Your task to perform on an android device: show emergency info Image 0: 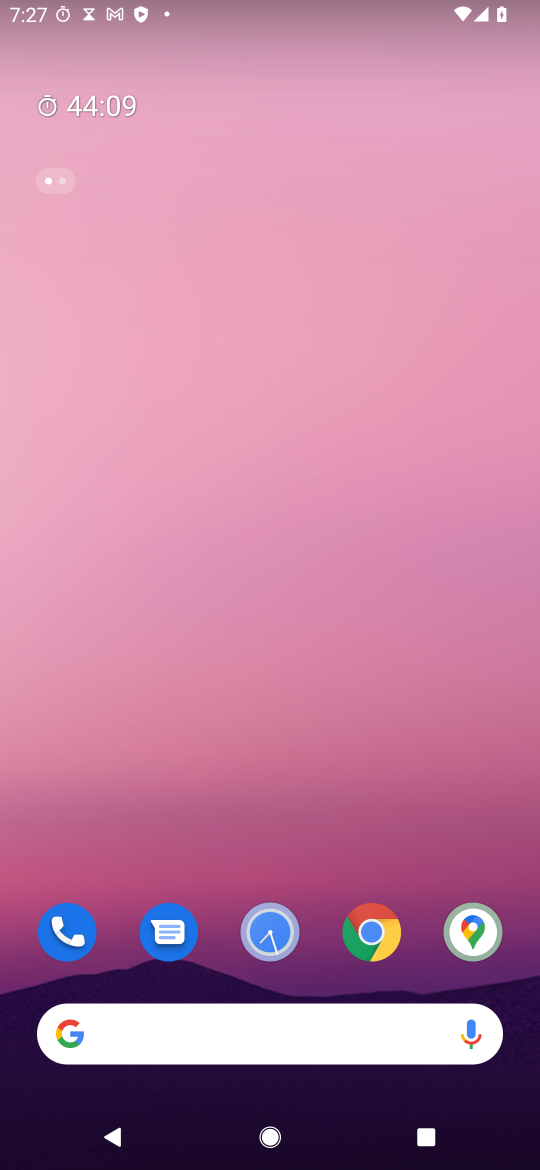
Step 0: drag from (390, 782) to (501, 17)
Your task to perform on an android device: show emergency info Image 1: 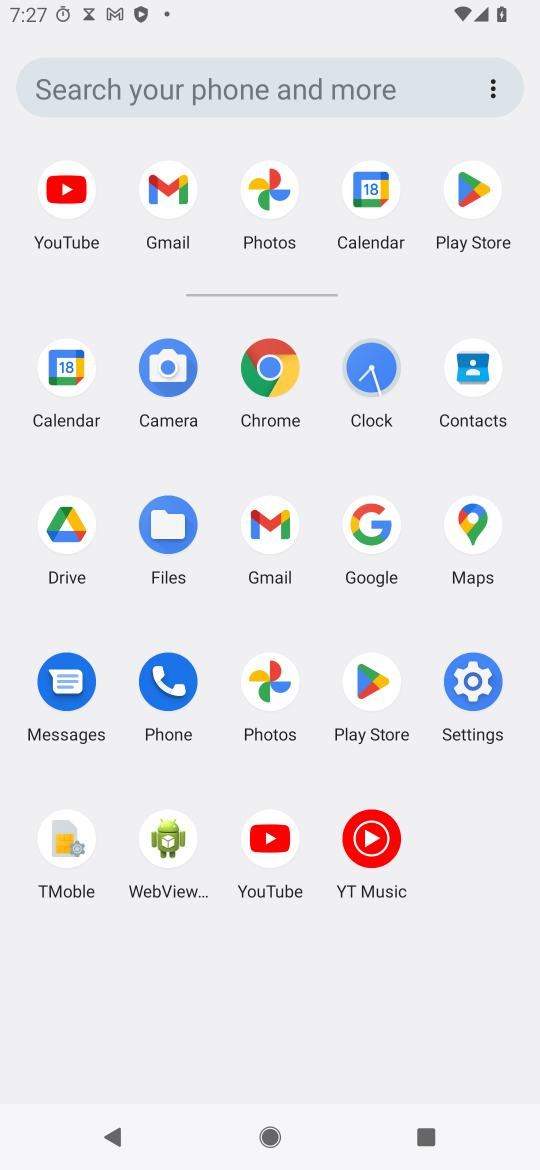
Step 1: click (257, 359)
Your task to perform on an android device: show emergency info Image 2: 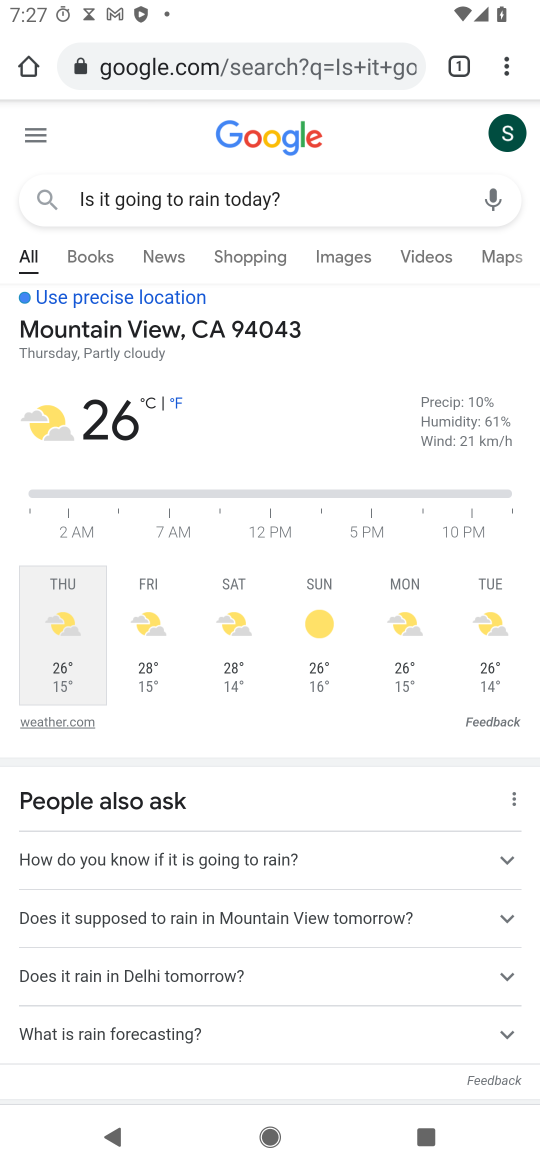
Step 2: press home button
Your task to perform on an android device: show emergency info Image 3: 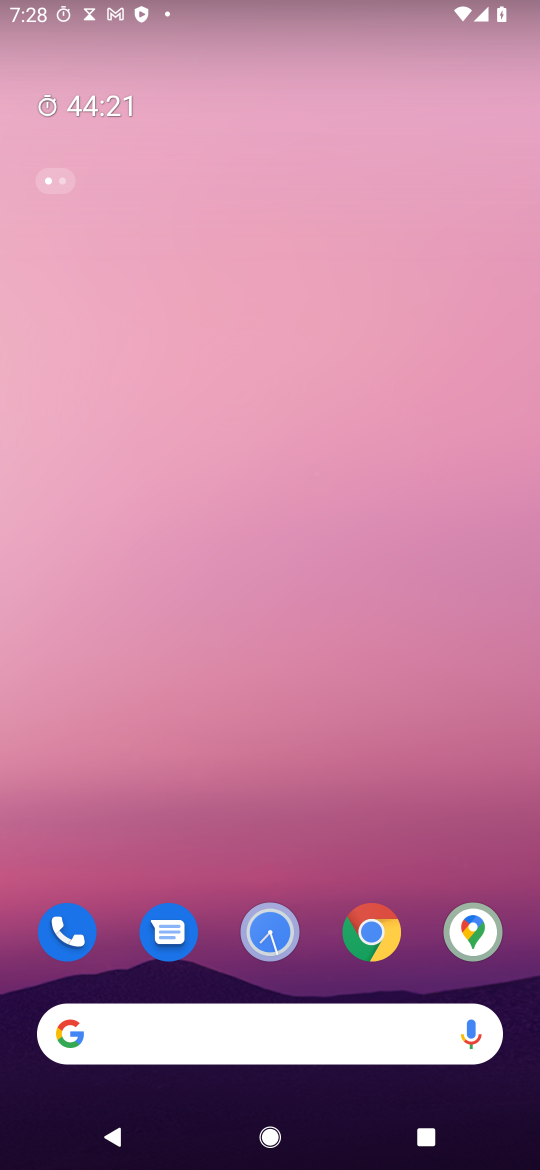
Step 3: drag from (253, 820) to (307, 75)
Your task to perform on an android device: show emergency info Image 4: 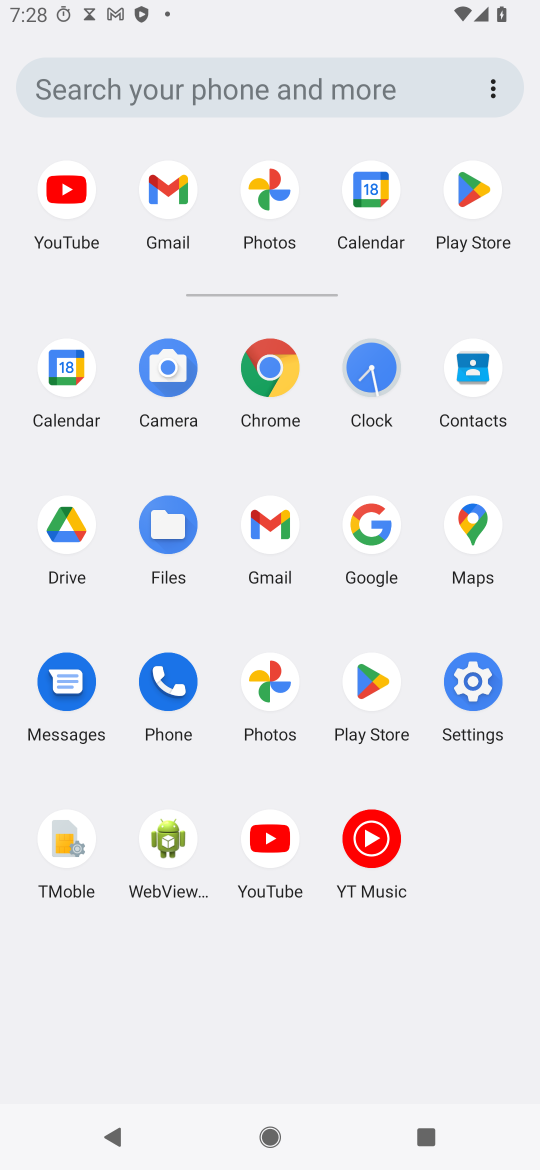
Step 4: click (475, 698)
Your task to perform on an android device: show emergency info Image 5: 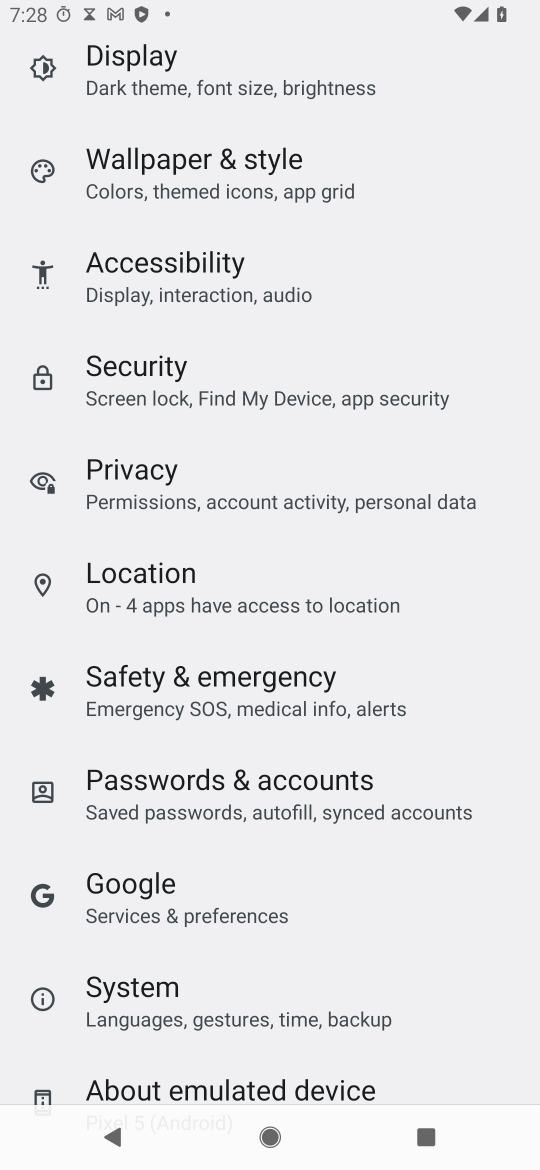
Step 5: drag from (366, 280) to (267, 929)
Your task to perform on an android device: show emergency info Image 6: 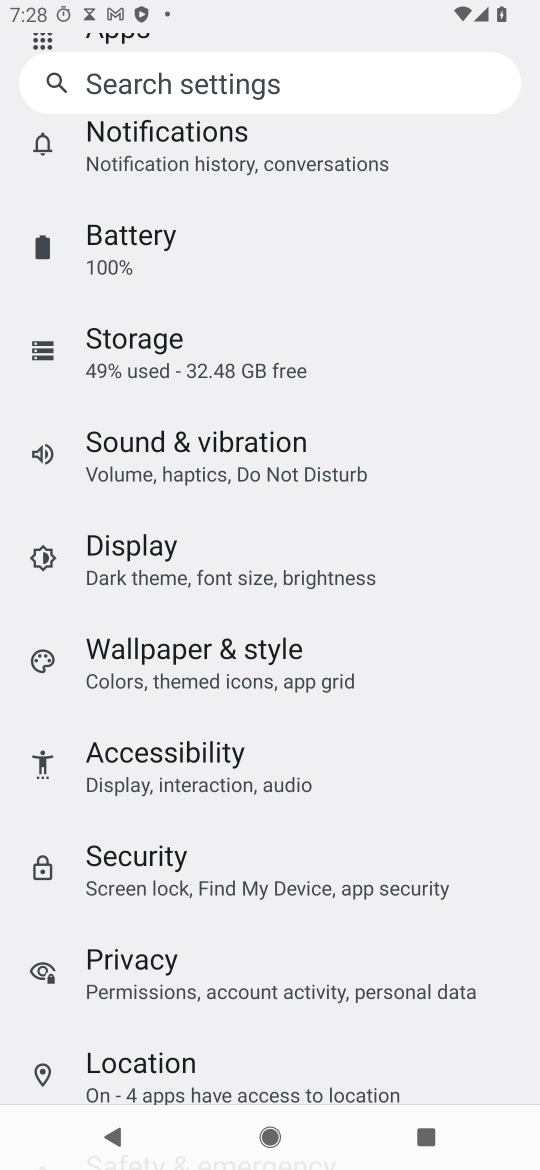
Step 6: drag from (264, 337) to (220, 940)
Your task to perform on an android device: show emergency info Image 7: 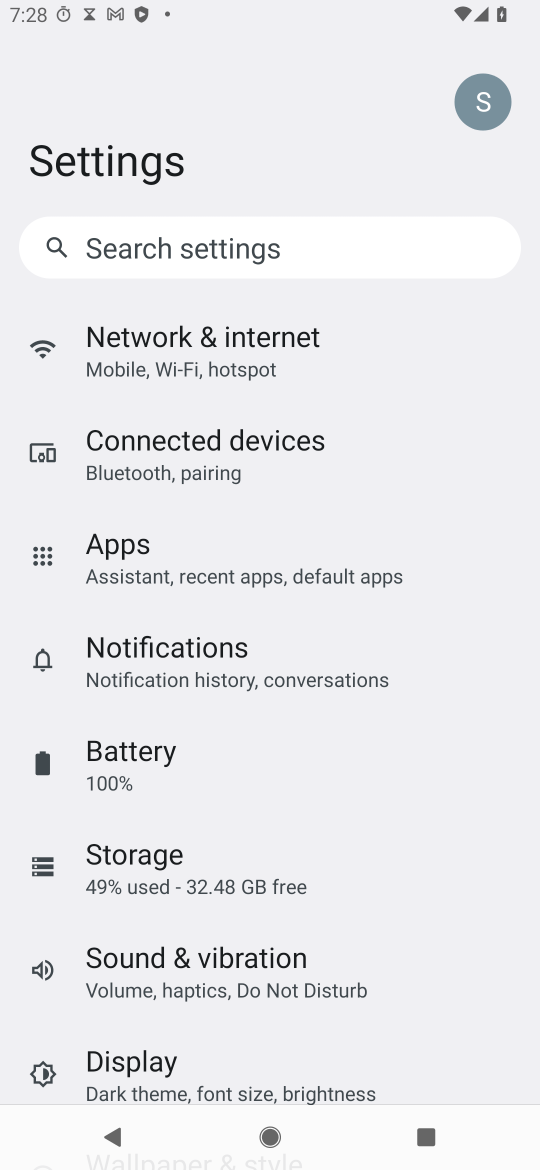
Step 7: drag from (224, 895) to (246, 435)
Your task to perform on an android device: show emergency info Image 8: 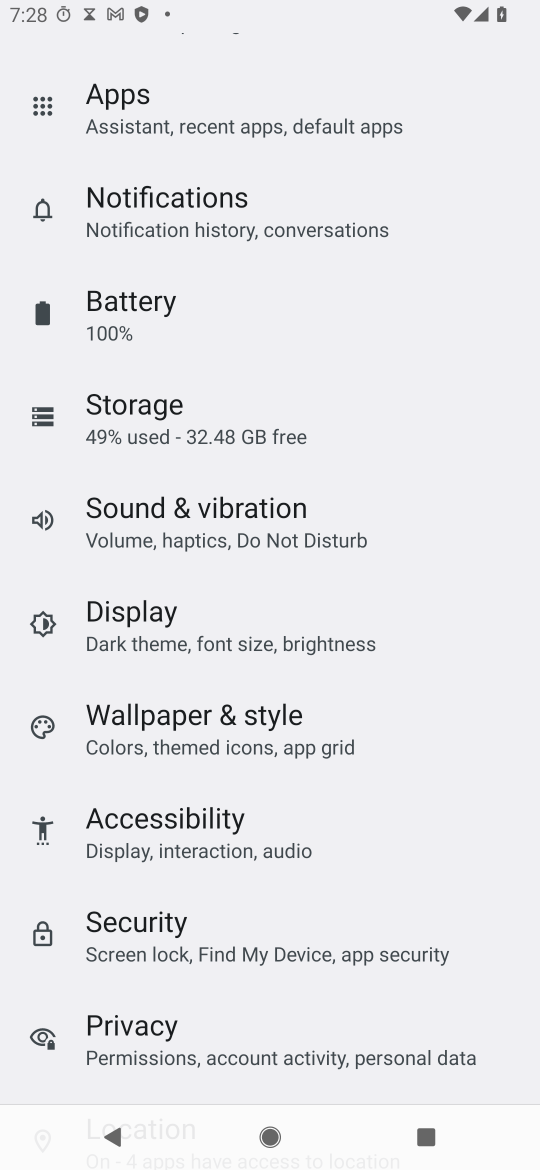
Step 8: drag from (233, 844) to (248, 477)
Your task to perform on an android device: show emergency info Image 9: 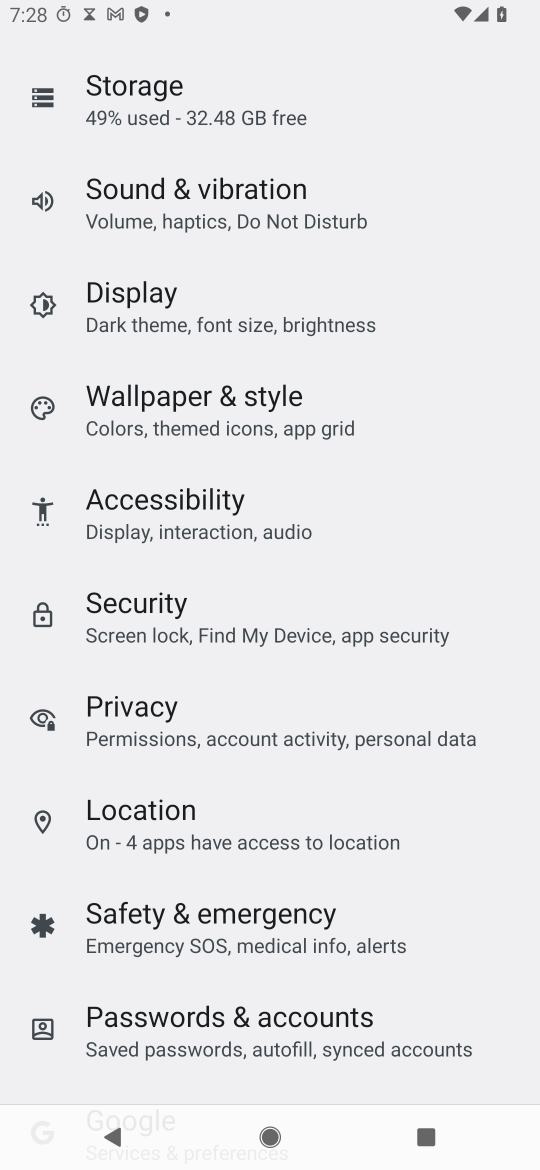
Step 9: drag from (219, 1018) to (285, 371)
Your task to perform on an android device: show emergency info Image 10: 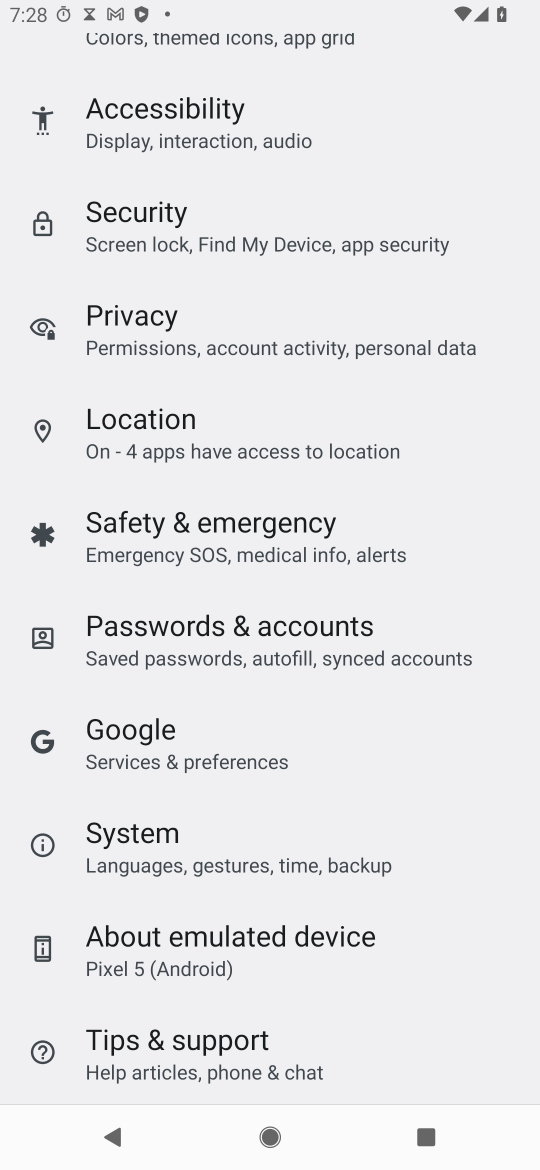
Step 10: click (233, 945)
Your task to perform on an android device: show emergency info Image 11: 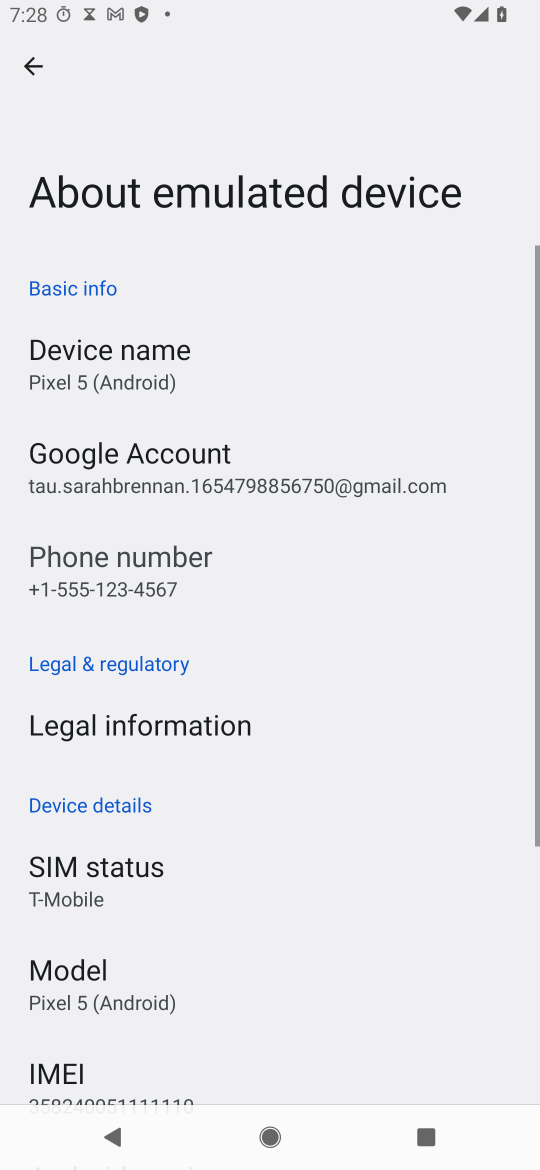
Step 11: drag from (206, 916) to (293, 326)
Your task to perform on an android device: show emergency info Image 12: 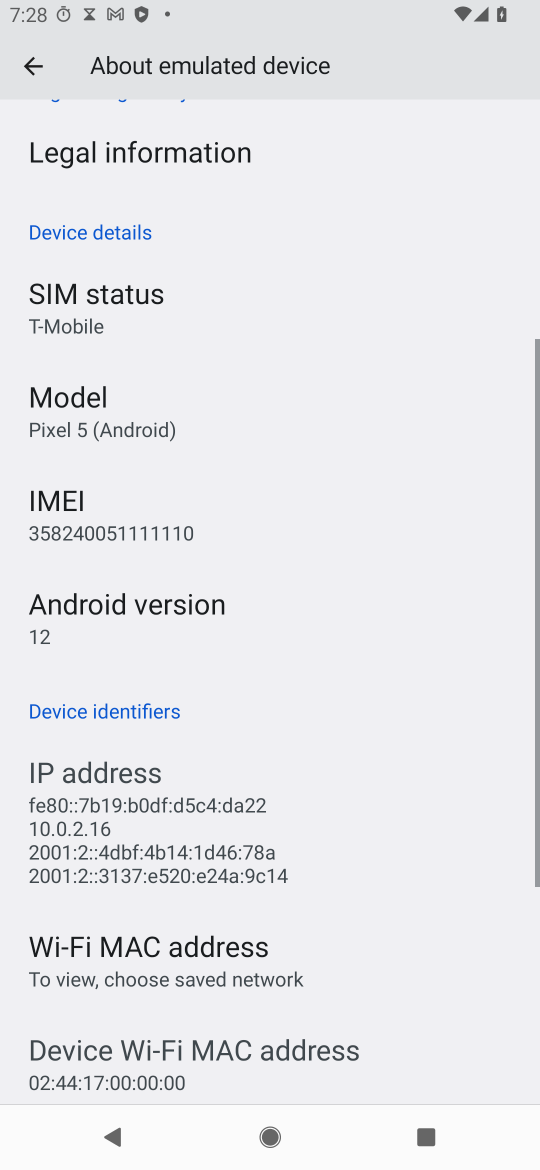
Step 12: drag from (214, 818) to (335, 133)
Your task to perform on an android device: show emergency info Image 13: 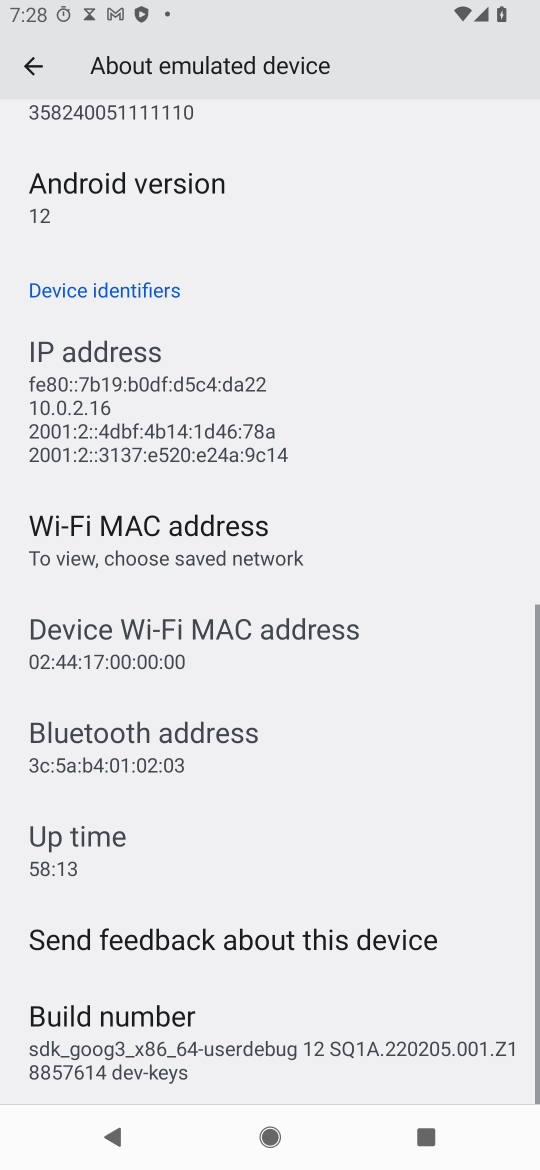
Step 13: drag from (290, 349) to (285, 879)
Your task to perform on an android device: show emergency info Image 14: 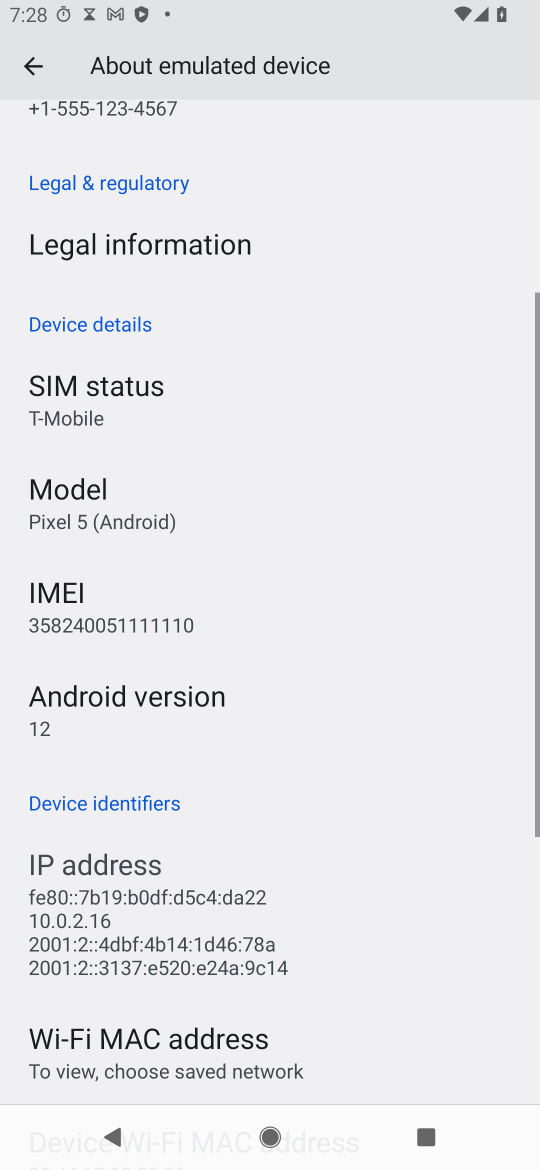
Step 14: drag from (287, 364) to (259, 621)
Your task to perform on an android device: show emergency info Image 15: 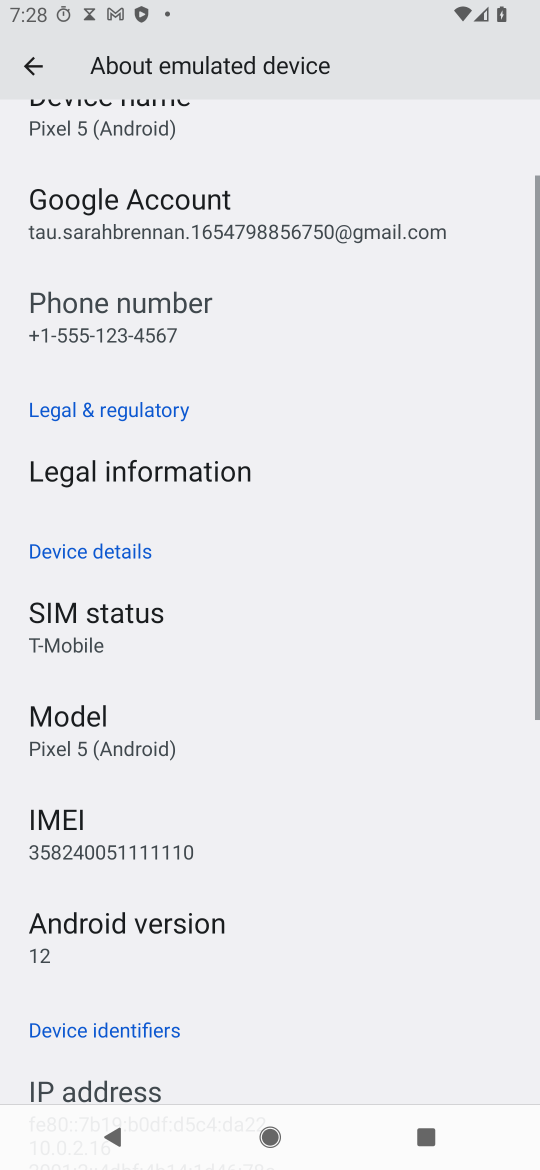
Step 15: click (146, 477)
Your task to perform on an android device: show emergency info Image 16: 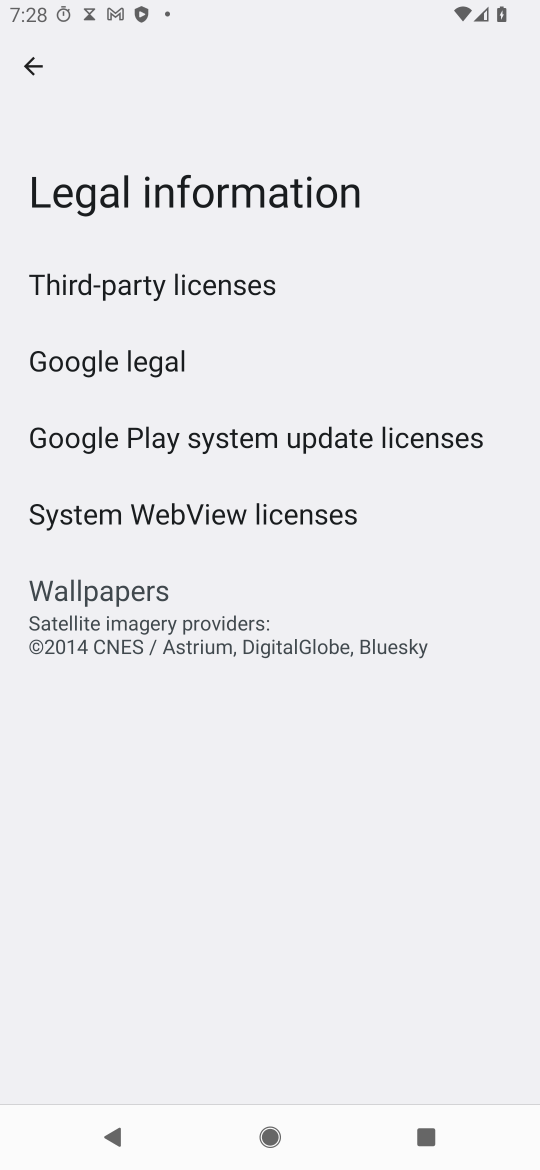
Step 16: task complete